Your task to perform on an android device: turn off data saver in the chrome app Image 0: 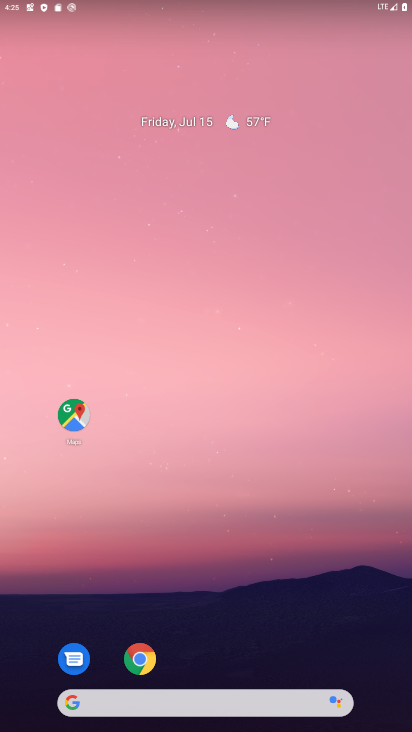
Step 0: drag from (325, 639) to (200, 145)
Your task to perform on an android device: turn off data saver in the chrome app Image 1: 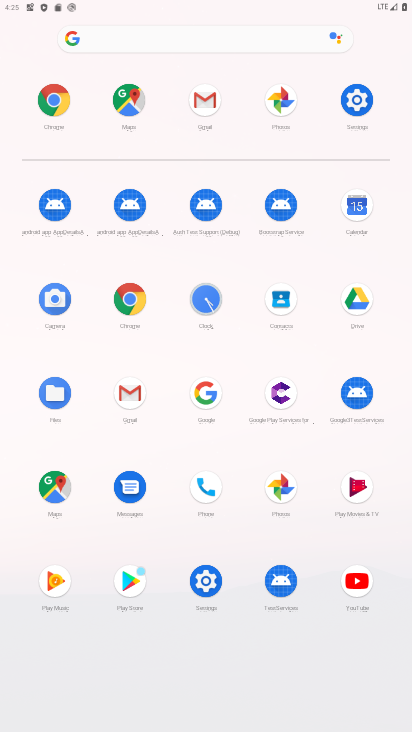
Step 1: click (126, 293)
Your task to perform on an android device: turn off data saver in the chrome app Image 2: 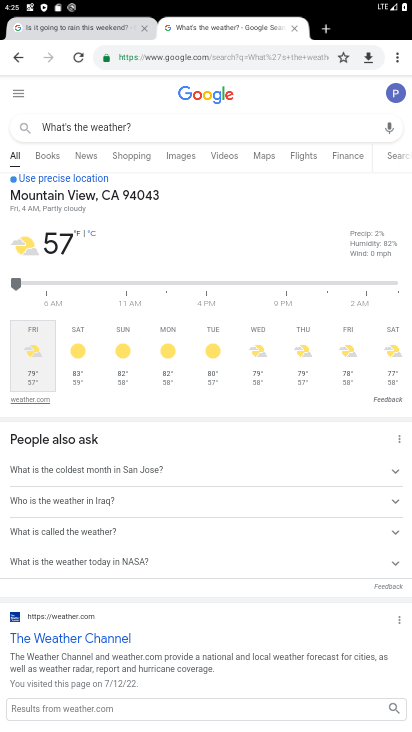
Step 2: click (396, 67)
Your task to perform on an android device: turn off data saver in the chrome app Image 3: 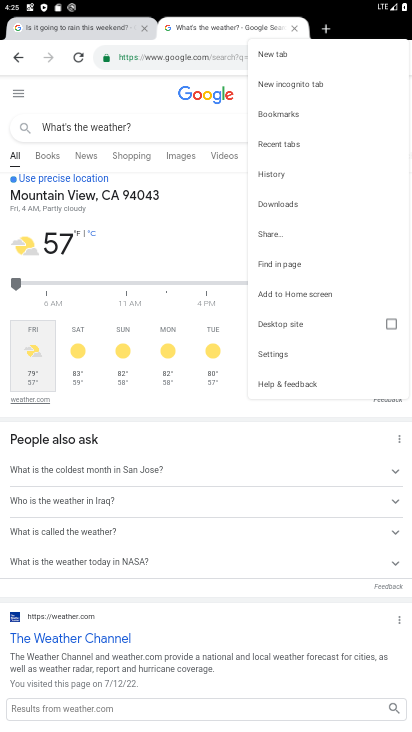
Step 3: click (313, 358)
Your task to perform on an android device: turn off data saver in the chrome app Image 4: 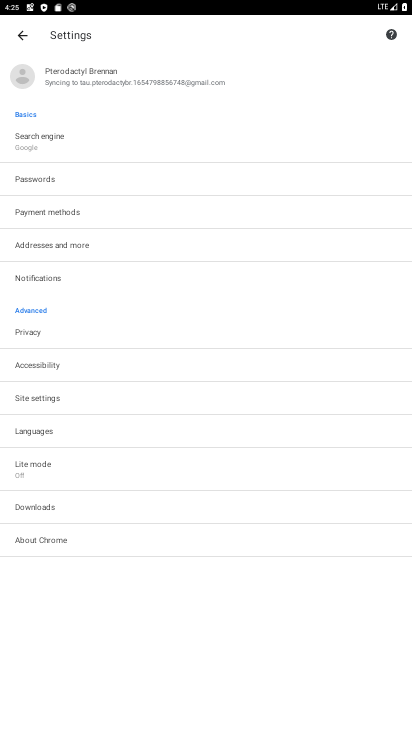
Step 4: click (83, 462)
Your task to perform on an android device: turn off data saver in the chrome app Image 5: 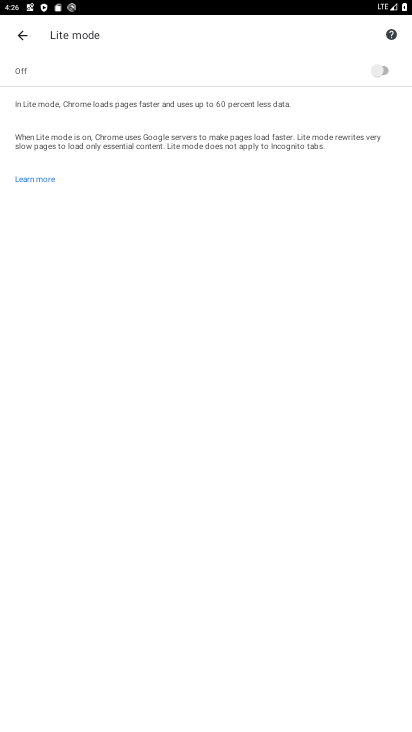
Step 5: task complete